Your task to perform on an android device: turn vacation reply on in the gmail app Image 0: 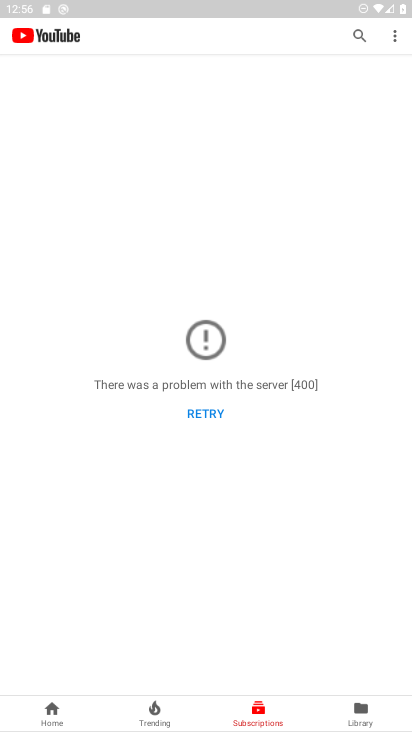
Step 0: press home button
Your task to perform on an android device: turn vacation reply on in the gmail app Image 1: 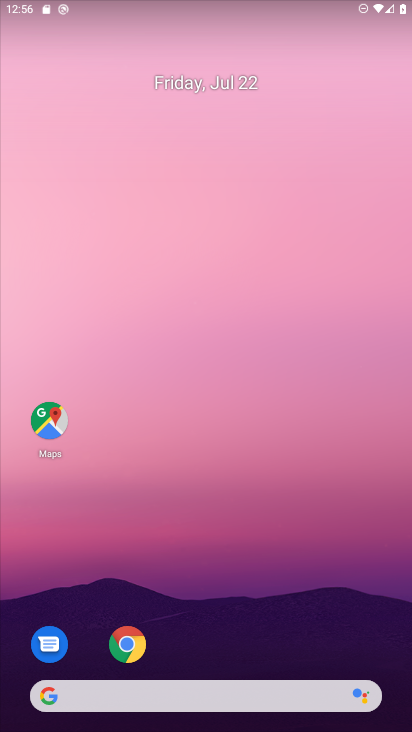
Step 1: drag from (234, 632) to (197, 165)
Your task to perform on an android device: turn vacation reply on in the gmail app Image 2: 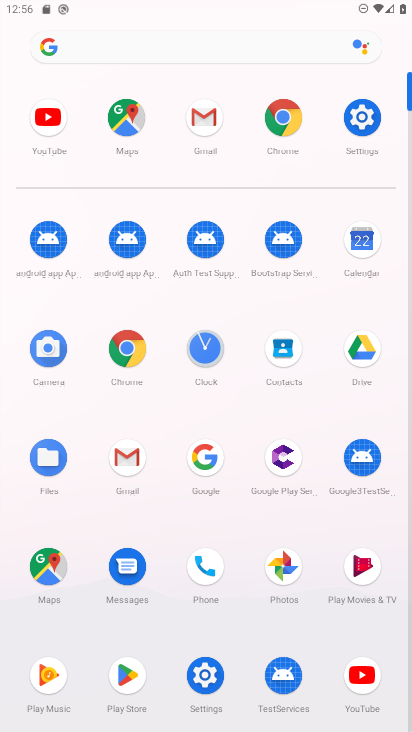
Step 2: click (206, 123)
Your task to perform on an android device: turn vacation reply on in the gmail app Image 3: 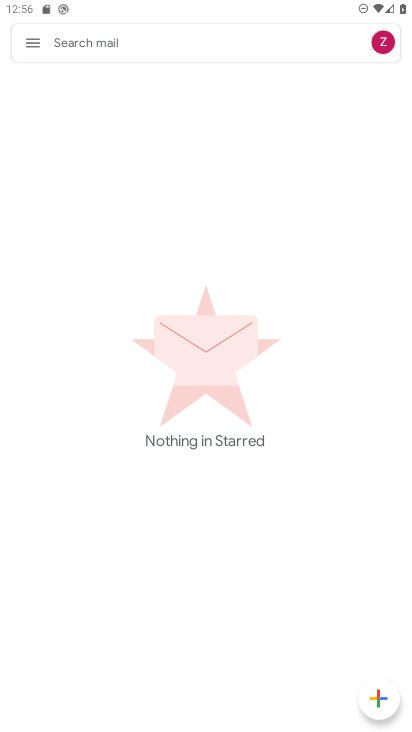
Step 3: click (26, 50)
Your task to perform on an android device: turn vacation reply on in the gmail app Image 4: 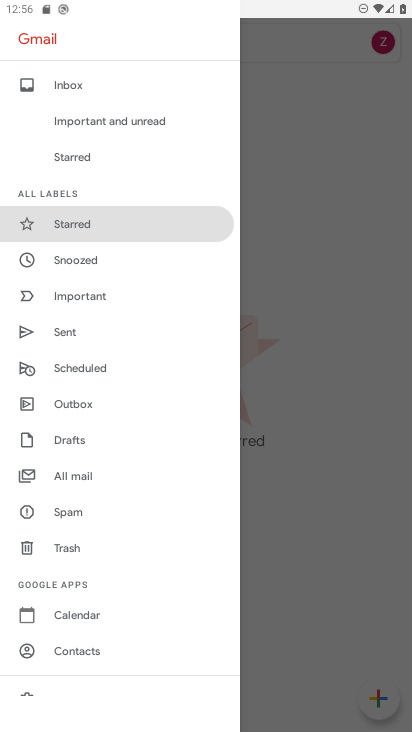
Step 4: drag from (110, 631) to (99, 243)
Your task to perform on an android device: turn vacation reply on in the gmail app Image 5: 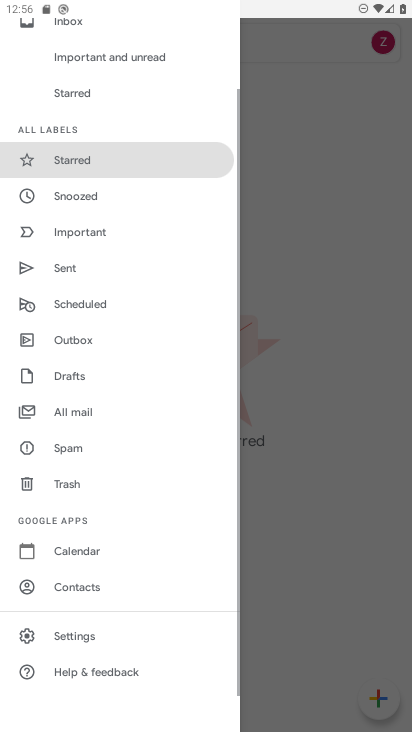
Step 5: click (40, 639)
Your task to perform on an android device: turn vacation reply on in the gmail app Image 6: 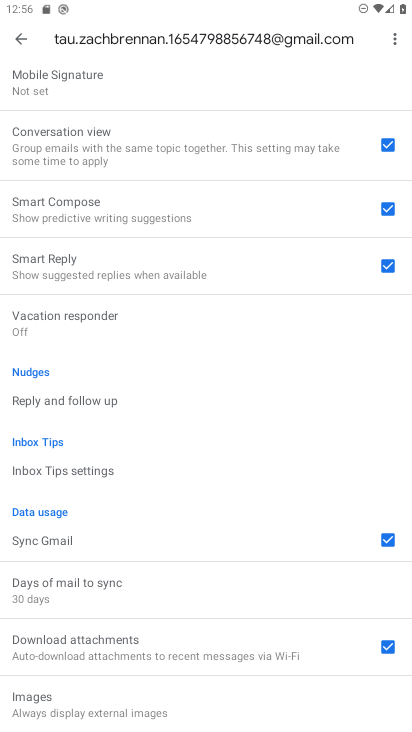
Step 6: click (126, 317)
Your task to perform on an android device: turn vacation reply on in the gmail app Image 7: 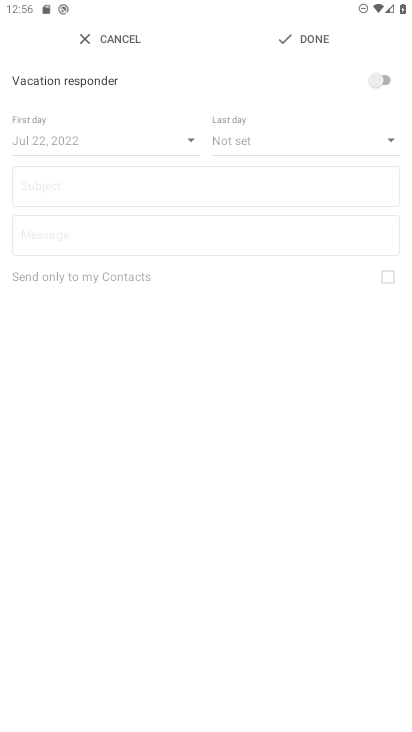
Step 7: click (329, 38)
Your task to perform on an android device: turn vacation reply on in the gmail app Image 8: 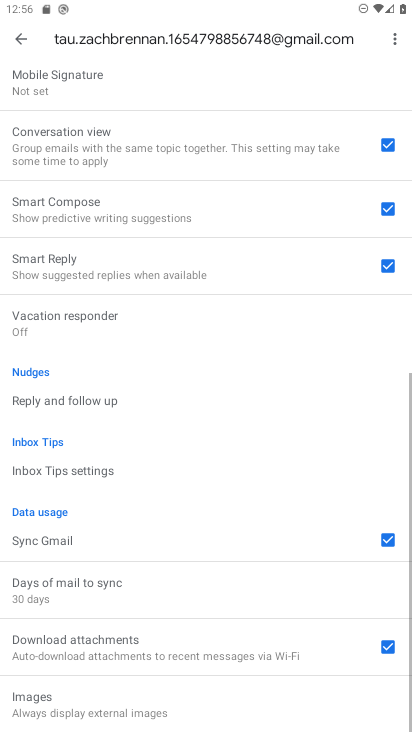
Step 8: task complete